Your task to perform on an android device: change the clock style Image 0: 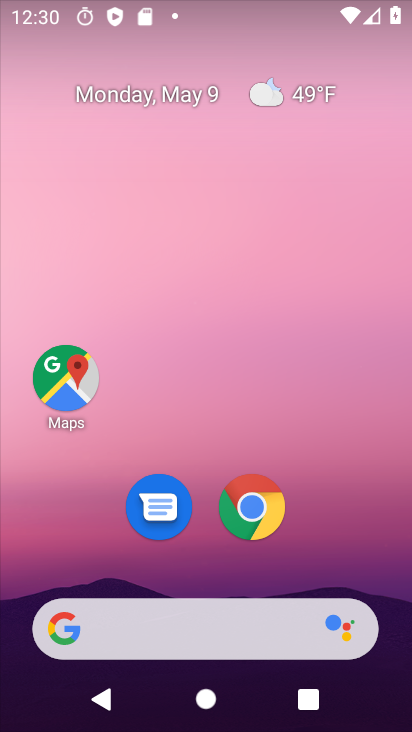
Step 0: drag from (224, 721) to (226, 253)
Your task to perform on an android device: change the clock style Image 1: 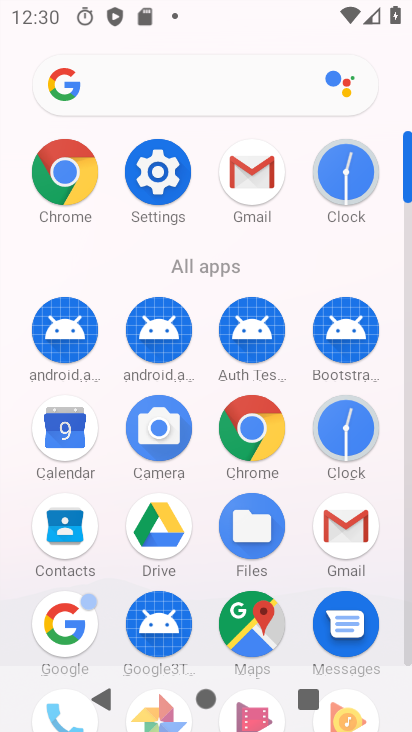
Step 1: click (352, 434)
Your task to perform on an android device: change the clock style Image 2: 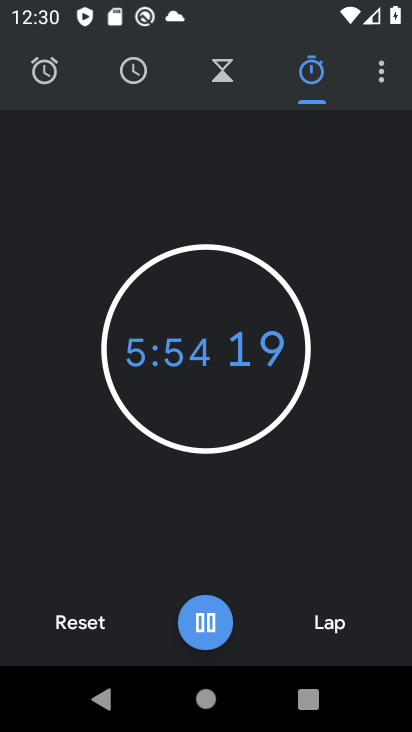
Step 2: click (381, 74)
Your task to perform on an android device: change the clock style Image 3: 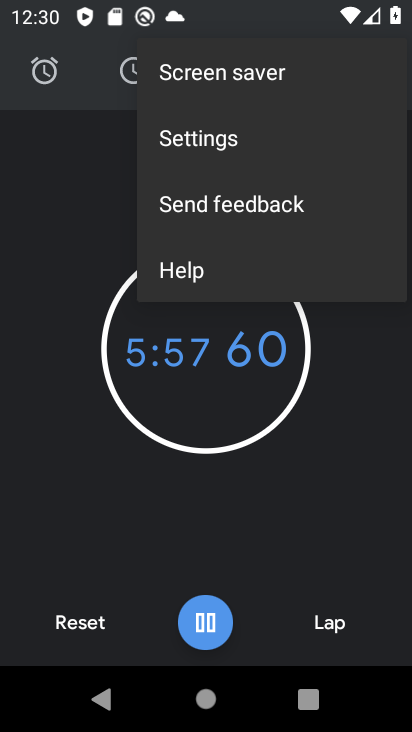
Step 3: click (195, 140)
Your task to perform on an android device: change the clock style Image 4: 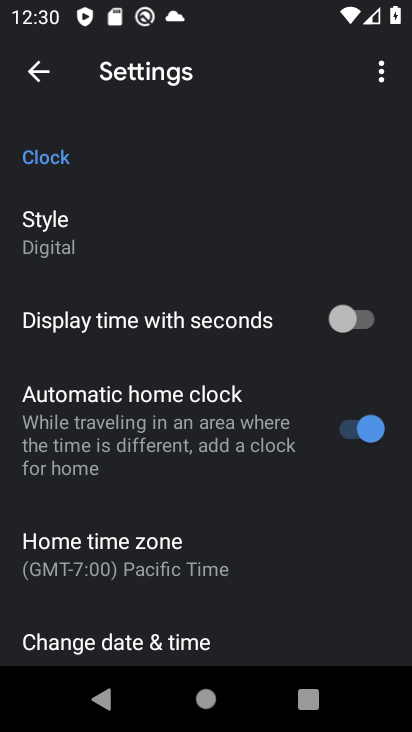
Step 4: click (59, 233)
Your task to perform on an android device: change the clock style Image 5: 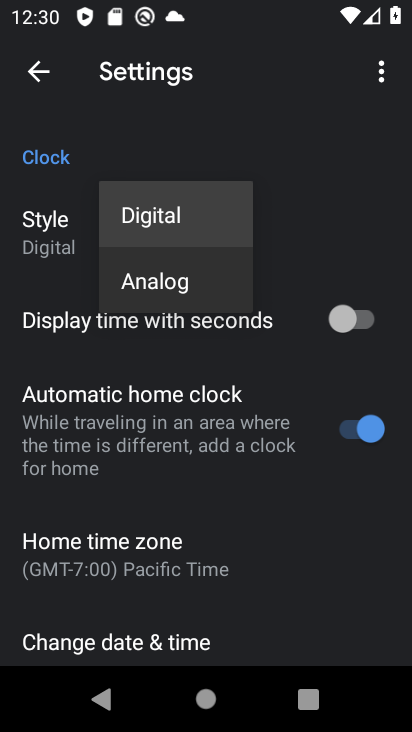
Step 5: click (154, 285)
Your task to perform on an android device: change the clock style Image 6: 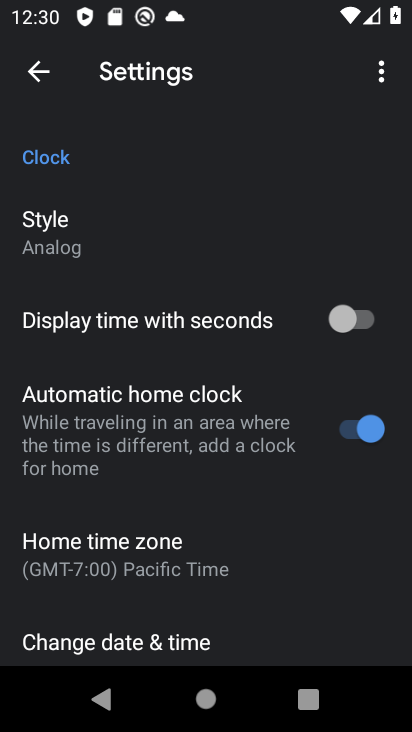
Step 6: task complete